Your task to perform on an android device: Open Youtube and go to the subscriptions tab Image 0: 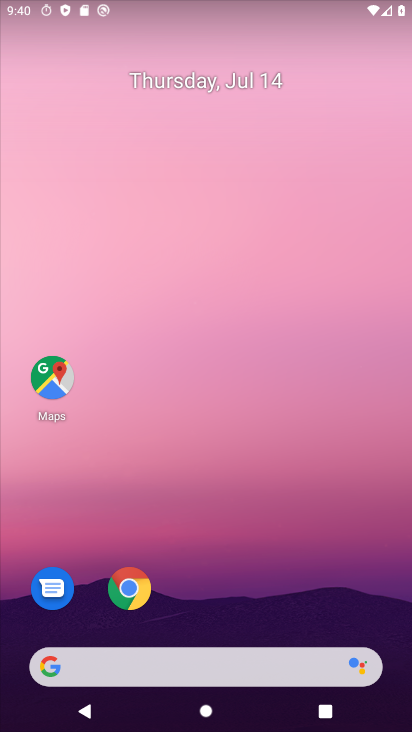
Step 0: drag from (161, 638) to (166, 314)
Your task to perform on an android device: Open Youtube and go to the subscriptions tab Image 1: 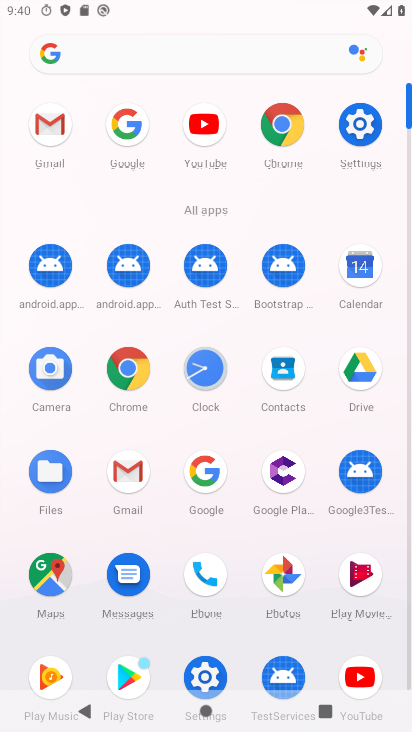
Step 1: click (218, 123)
Your task to perform on an android device: Open Youtube and go to the subscriptions tab Image 2: 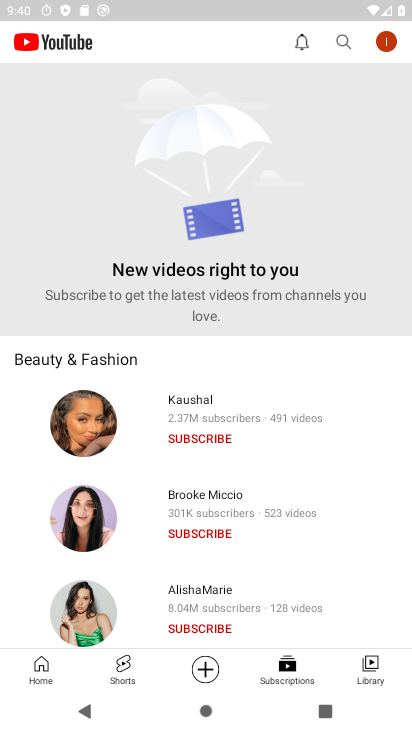
Step 2: task complete